Your task to perform on an android device: turn on the 12-hour format for clock Image 0: 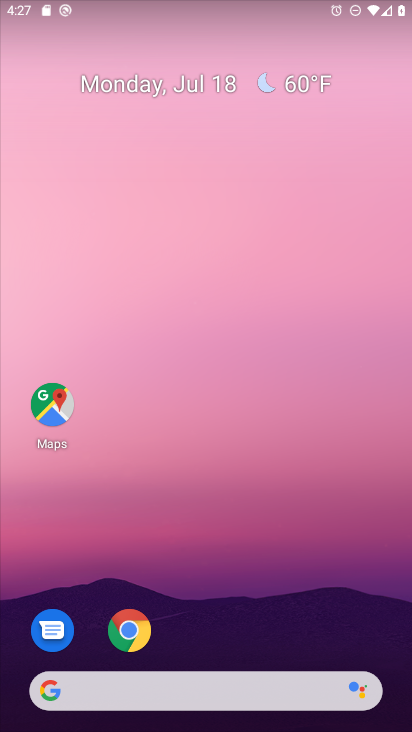
Step 0: drag from (290, 593) to (243, 15)
Your task to perform on an android device: turn on the 12-hour format for clock Image 1: 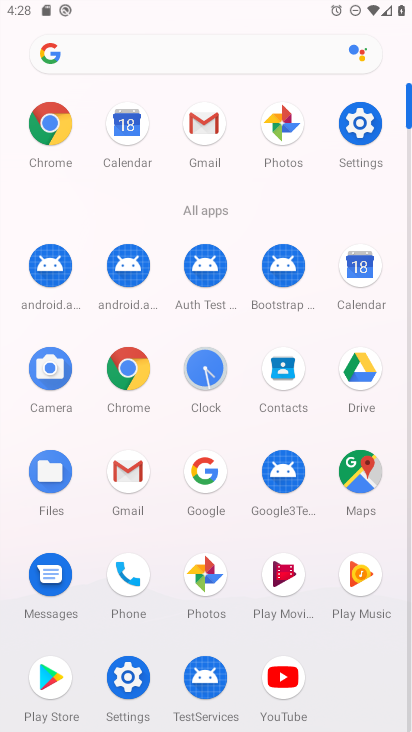
Step 1: click (209, 358)
Your task to perform on an android device: turn on the 12-hour format for clock Image 2: 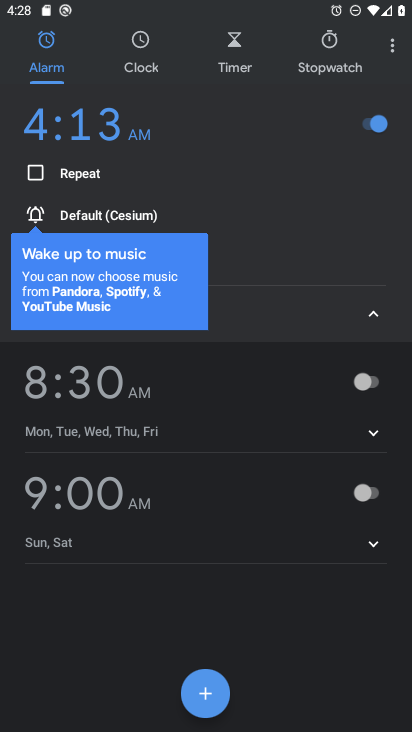
Step 2: click (391, 43)
Your task to perform on an android device: turn on the 12-hour format for clock Image 3: 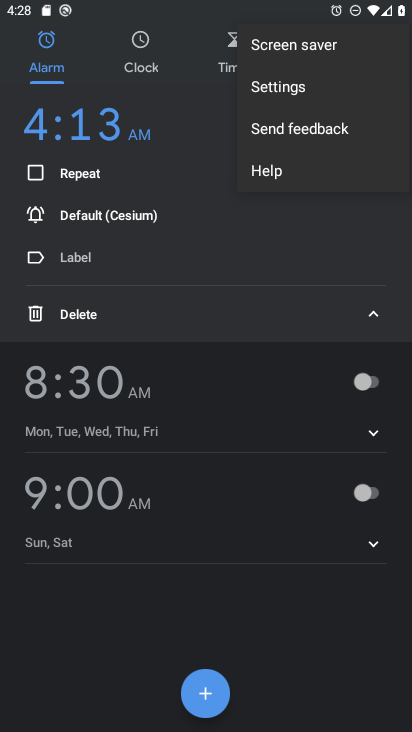
Step 3: click (292, 89)
Your task to perform on an android device: turn on the 12-hour format for clock Image 4: 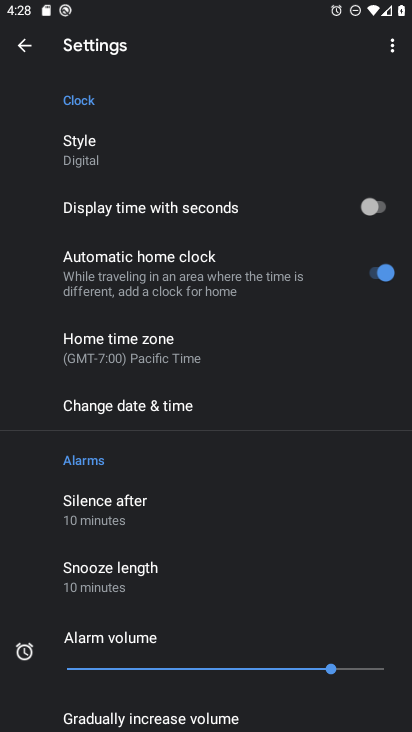
Step 4: click (125, 399)
Your task to perform on an android device: turn on the 12-hour format for clock Image 5: 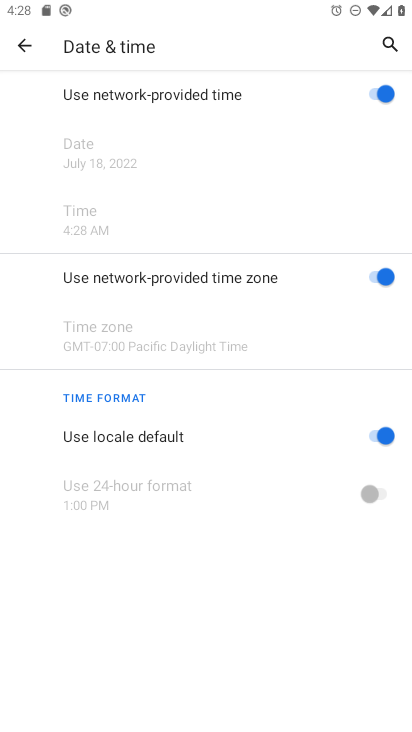
Step 5: task complete